Your task to perform on an android device: check data usage Image 0: 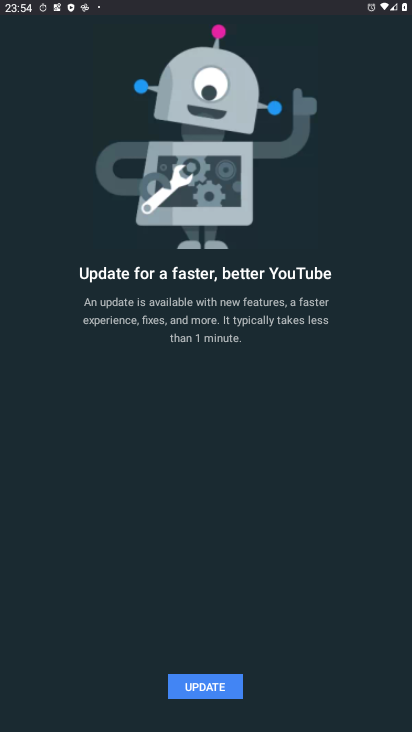
Step 0: press home button
Your task to perform on an android device: check data usage Image 1: 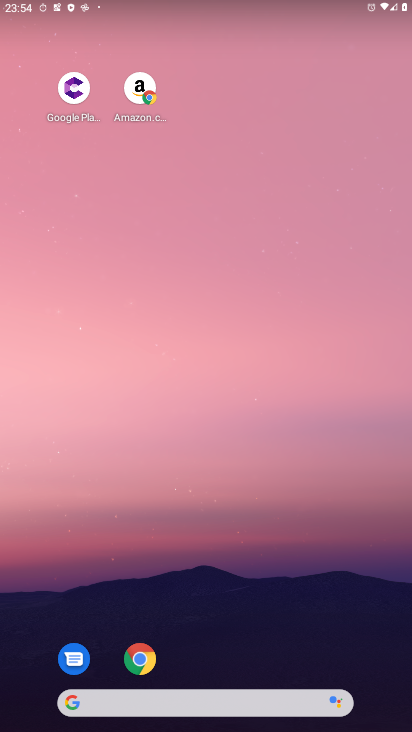
Step 1: drag from (264, 640) to (296, 247)
Your task to perform on an android device: check data usage Image 2: 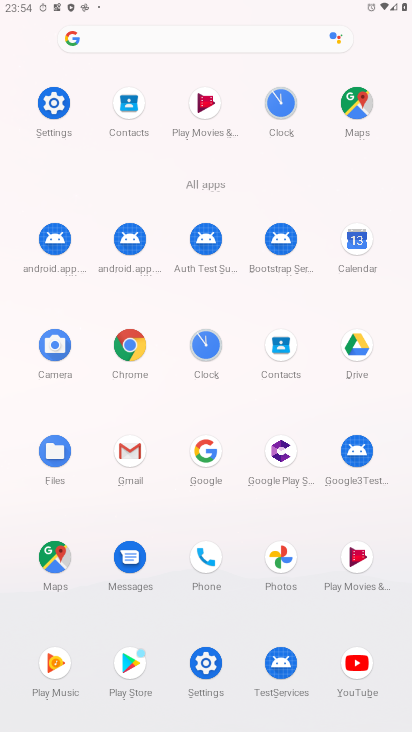
Step 2: click (40, 112)
Your task to perform on an android device: check data usage Image 3: 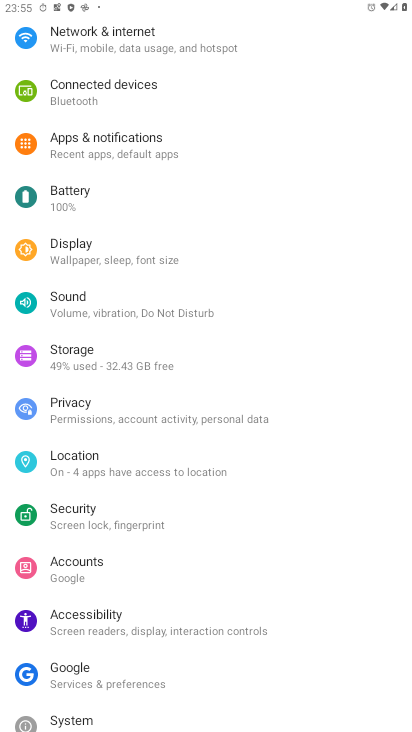
Step 3: click (117, 53)
Your task to perform on an android device: check data usage Image 4: 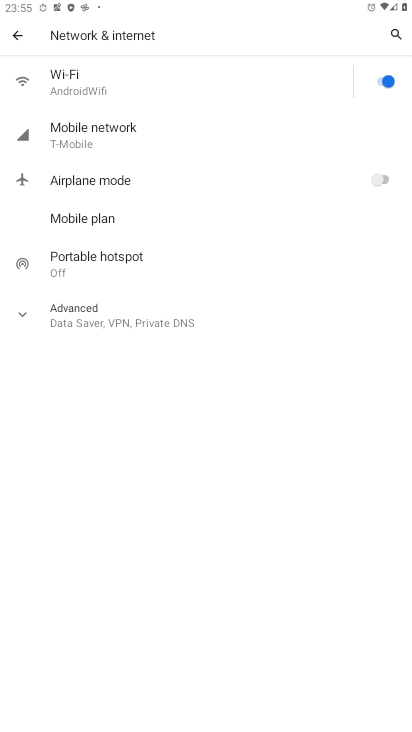
Step 4: click (171, 152)
Your task to perform on an android device: check data usage Image 5: 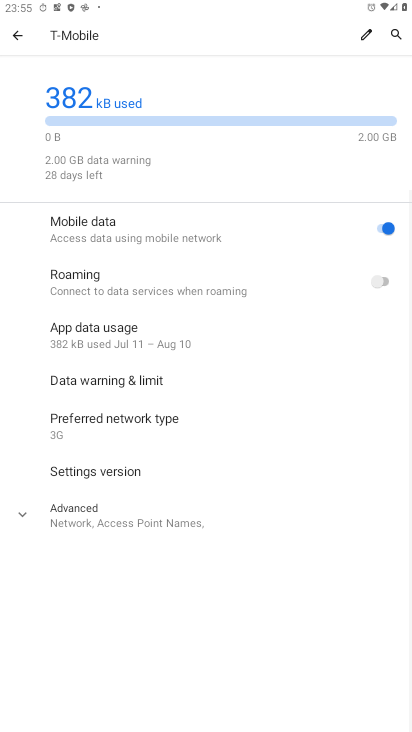
Step 5: task complete